Your task to perform on an android device: toggle wifi Image 0: 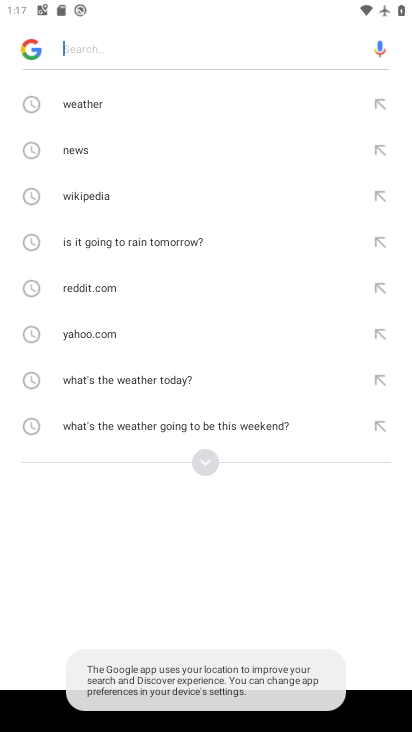
Step 0: press home button
Your task to perform on an android device: toggle wifi Image 1: 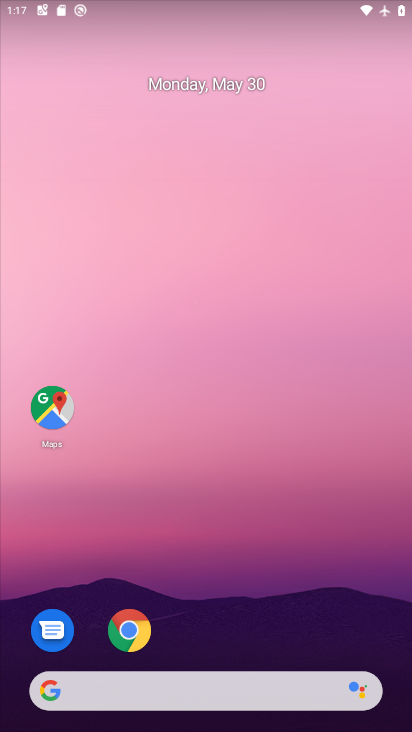
Step 1: drag from (211, 662) to (378, 54)
Your task to perform on an android device: toggle wifi Image 2: 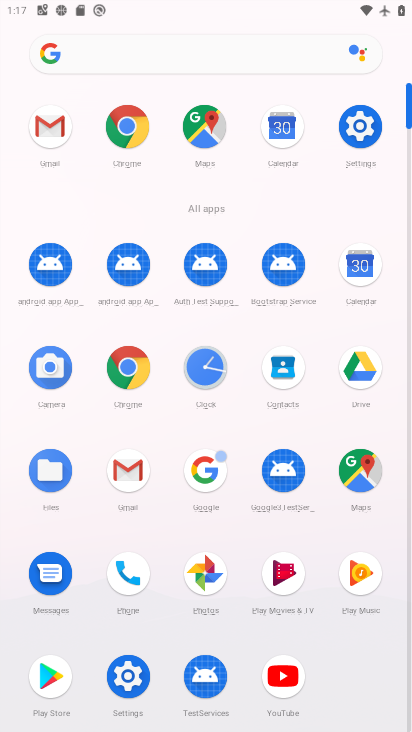
Step 2: click (363, 130)
Your task to perform on an android device: toggle wifi Image 3: 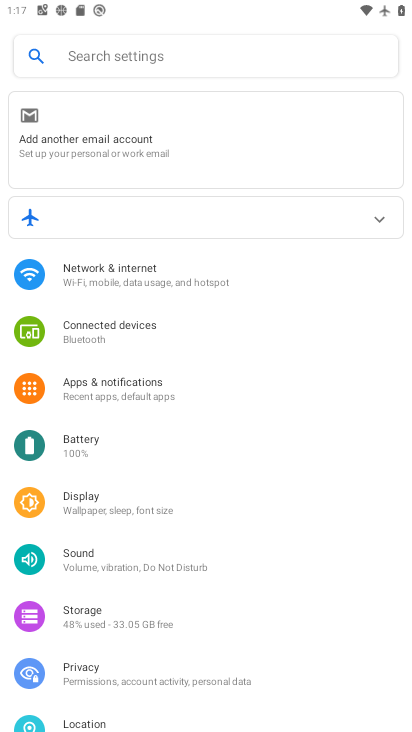
Step 3: click (141, 273)
Your task to perform on an android device: toggle wifi Image 4: 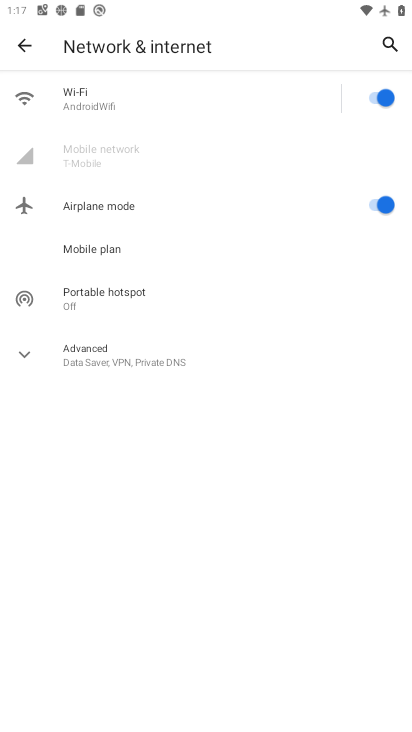
Step 4: click (374, 99)
Your task to perform on an android device: toggle wifi Image 5: 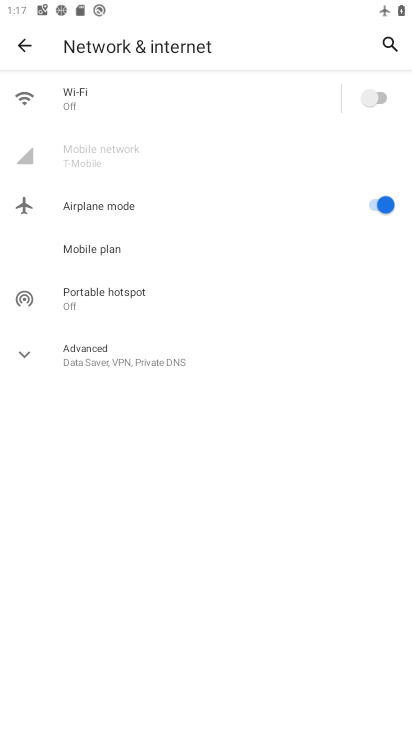
Step 5: task complete